Your task to perform on an android device: Go to Yahoo.com Image 0: 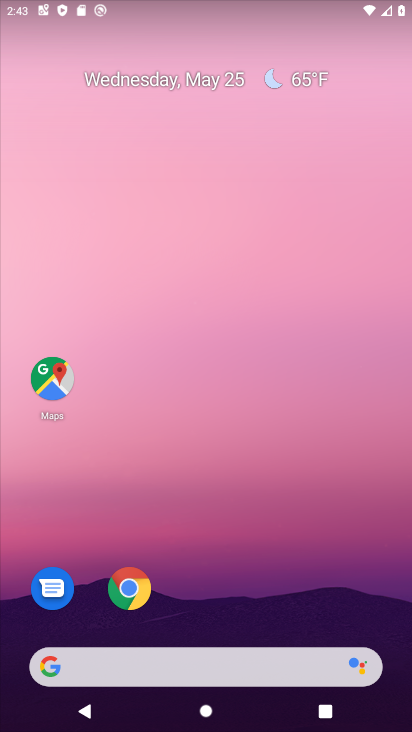
Step 0: click (135, 584)
Your task to perform on an android device: Go to Yahoo.com Image 1: 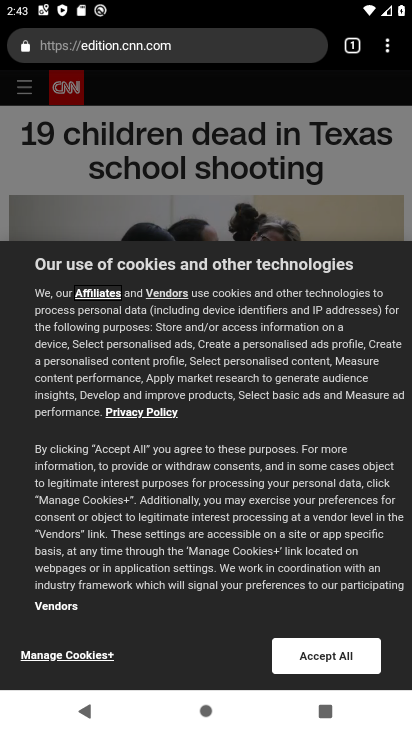
Step 1: click (133, 54)
Your task to perform on an android device: Go to Yahoo.com Image 2: 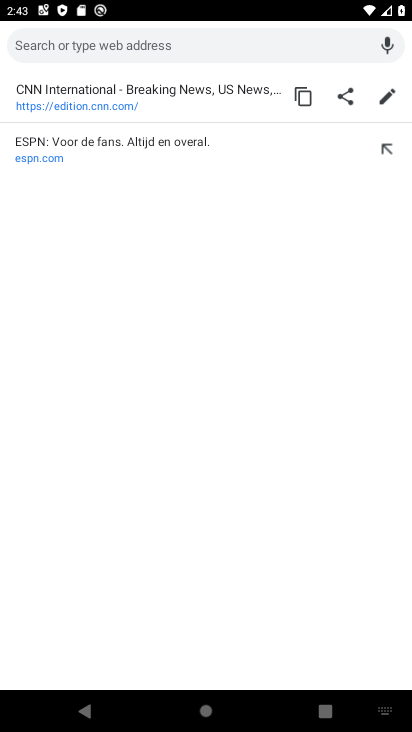
Step 2: type "Yahoo.com"
Your task to perform on an android device: Go to Yahoo.com Image 3: 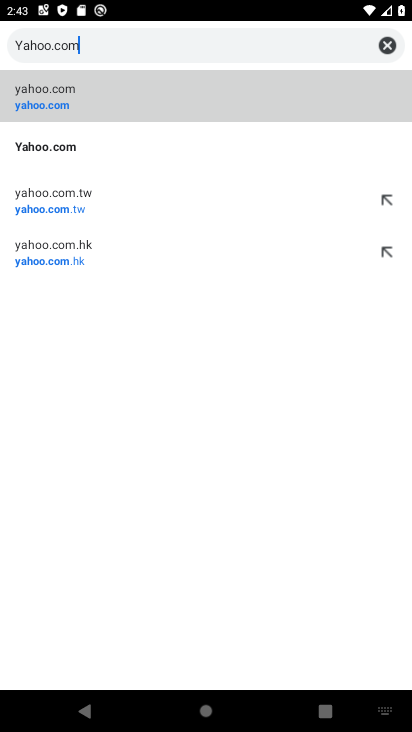
Step 3: click (52, 104)
Your task to perform on an android device: Go to Yahoo.com Image 4: 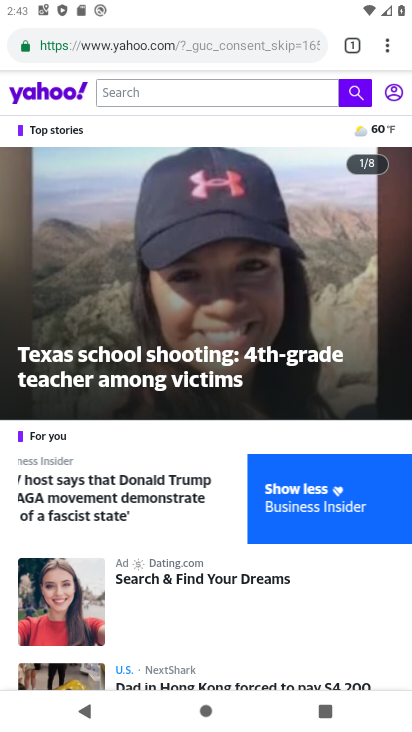
Step 4: task complete